Your task to perform on an android device: search for starred emails in the gmail app Image 0: 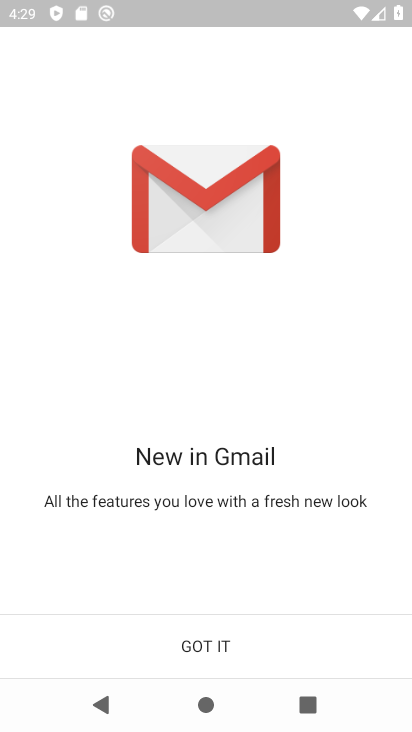
Step 0: drag from (221, 590) to (387, 647)
Your task to perform on an android device: search for starred emails in the gmail app Image 1: 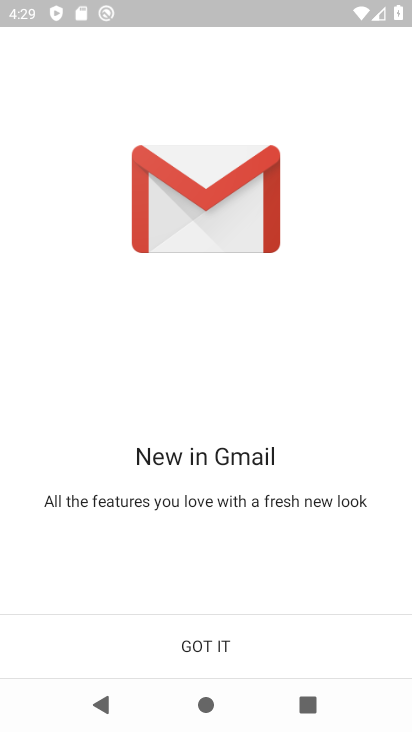
Step 1: click (178, 617)
Your task to perform on an android device: search for starred emails in the gmail app Image 2: 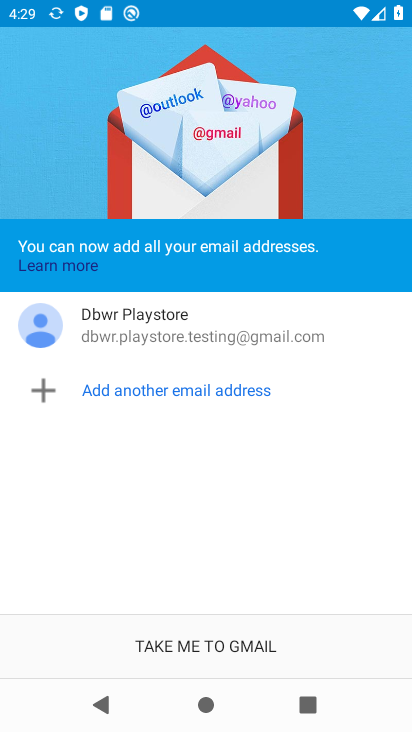
Step 2: click (201, 647)
Your task to perform on an android device: search for starred emails in the gmail app Image 3: 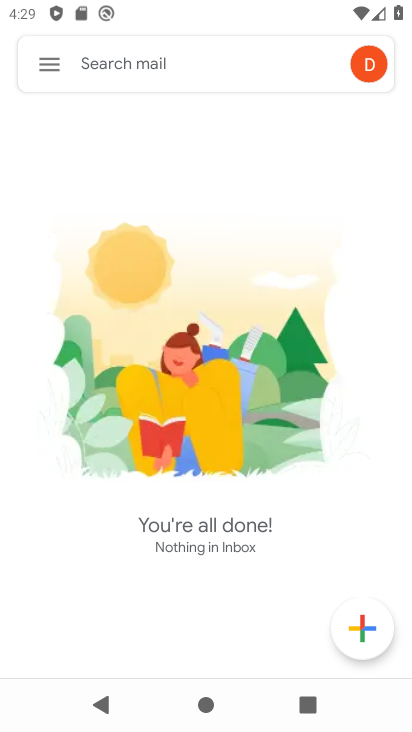
Step 3: click (56, 64)
Your task to perform on an android device: search for starred emails in the gmail app Image 4: 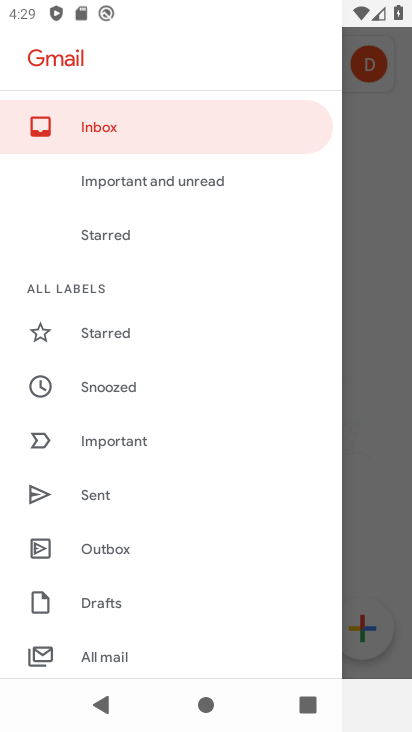
Step 4: click (127, 232)
Your task to perform on an android device: search for starred emails in the gmail app Image 5: 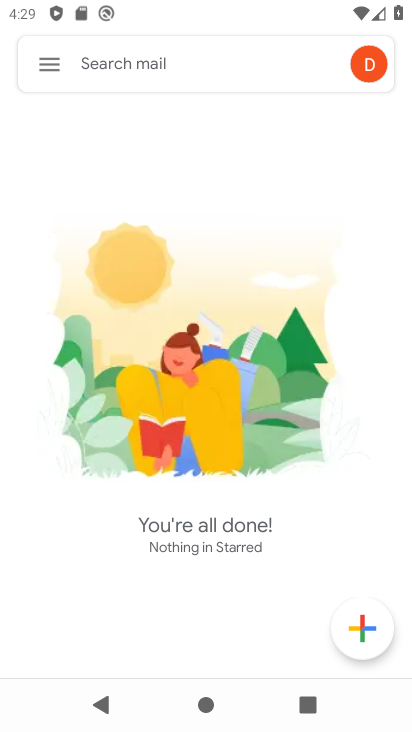
Step 5: task complete